Your task to perform on an android device: What's the weather going to be tomorrow? Image 0: 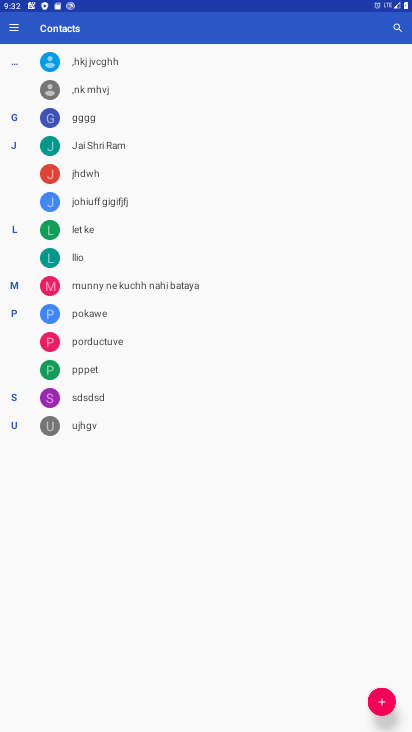
Step 0: press home button
Your task to perform on an android device: What's the weather going to be tomorrow? Image 1: 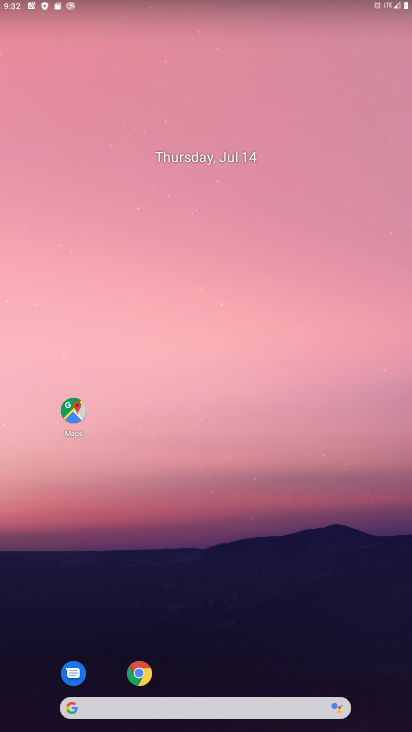
Step 1: drag from (192, 707) to (197, 205)
Your task to perform on an android device: What's the weather going to be tomorrow? Image 2: 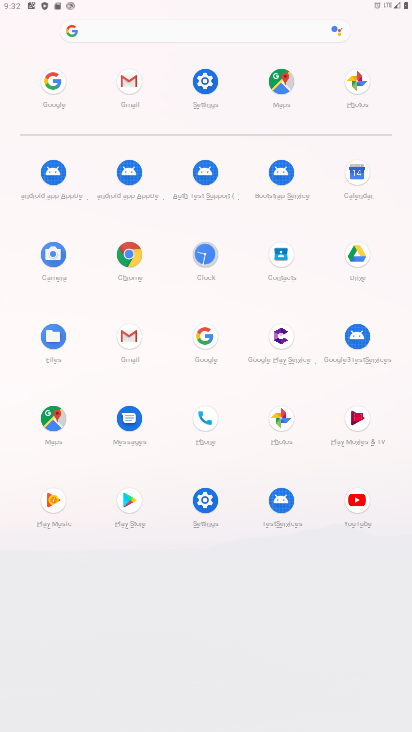
Step 2: click (203, 335)
Your task to perform on an android device: What's the weather going to be tomorrow? Image 3: 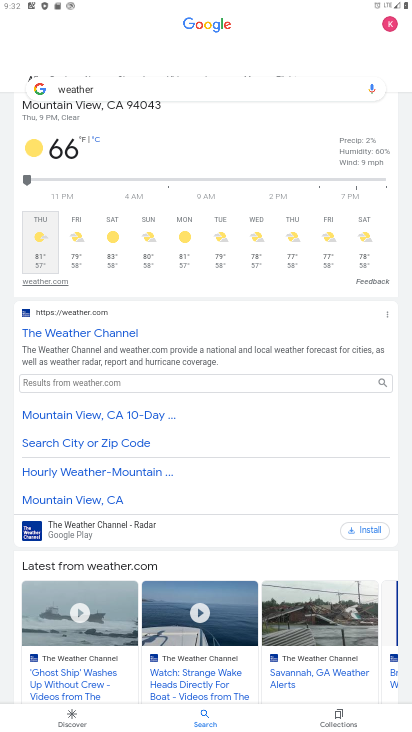
Step 3: click (228, 89)
Your task to perform on an android device: What's the weather going to be tomorrow? Image 4: 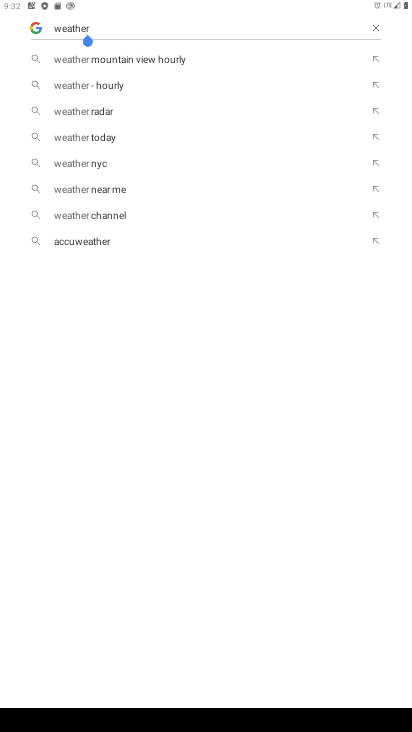
Step 4: click (376, 26)
Your task to perform on an android device: What's the weather going to be tomorrow? Image 5: 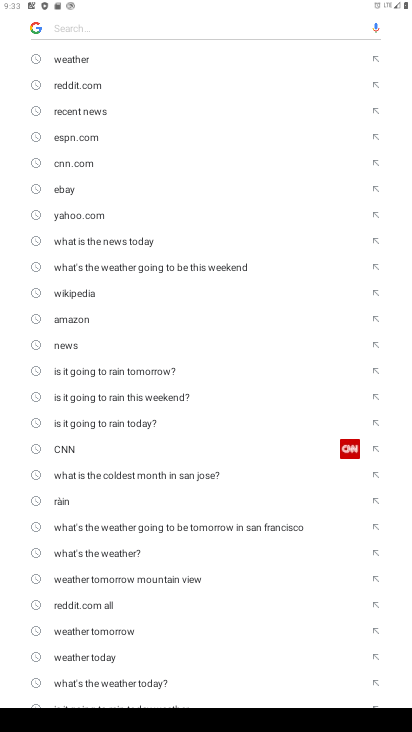
Step 5: type "What's the weather going to be tomorrow?"
Your task to perform on an android device: What's the weather going to be tomorrow? Image 6: 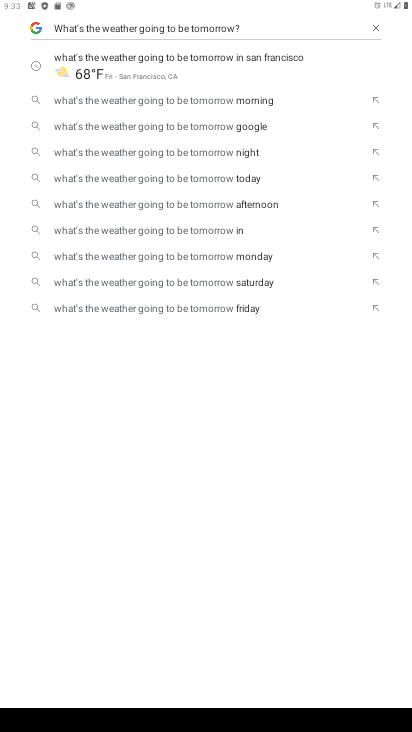
Step 6: click (151, 81)
Your task to perform on an android device: What's the weather going to be tomorrow? Image 7: 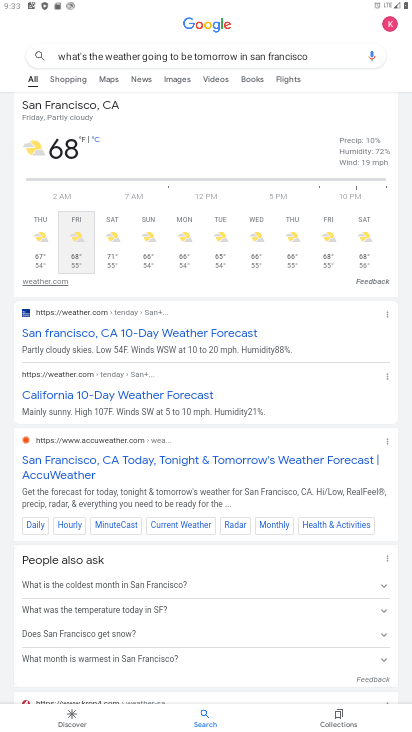
Step 7: task complete